Your task to perform on an android device: manage bookmarks in the chrome app Image 0: 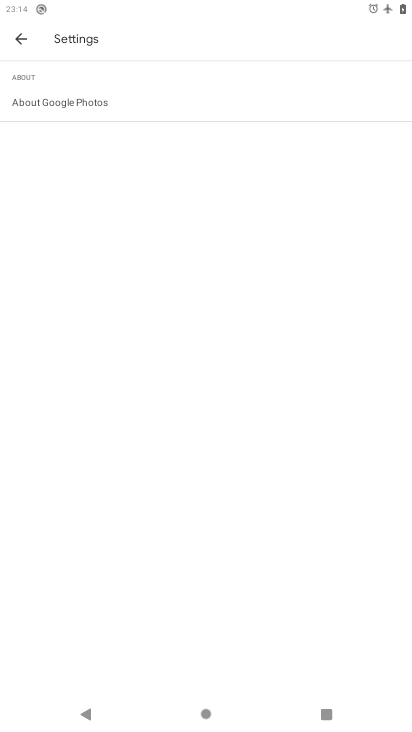
Step 0: press home button
Your task to perform on an android device: manage bookmarks in the chrome app Image 1: 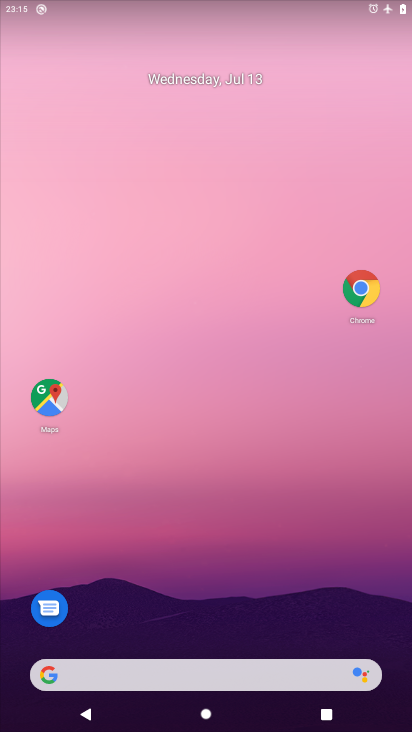
Step 1: click (355, 302)
Your task to perform on an android device: manage bookmarks in the chrome app Image 2: 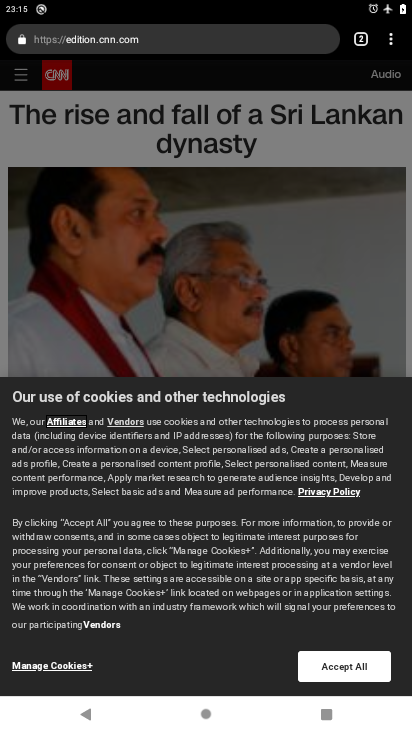
Step 2: click (386, 45)
Your task to perform on an android device: manage bookmarks in the chrome app Image 3: 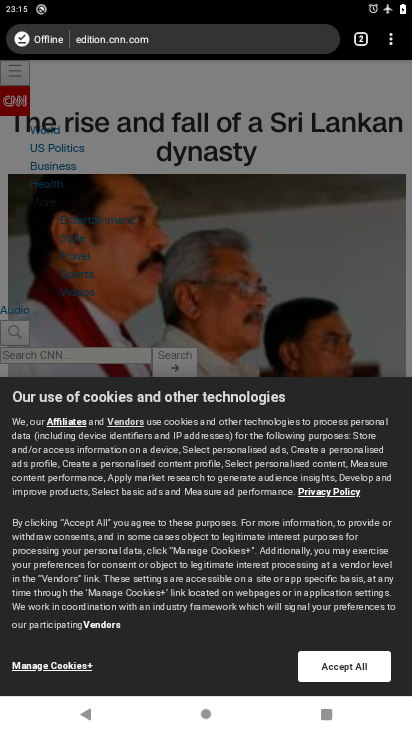
Step 3: click (389, 36)
Your task to perform on an android device: manage bookmarks in the chrome app Image 4: 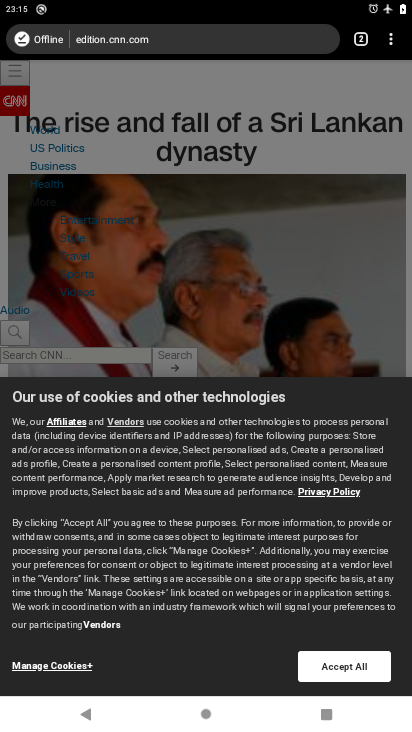
Step 4: task complete